Your task to perform on an android device: Open Maps and search for coffee Image 0: 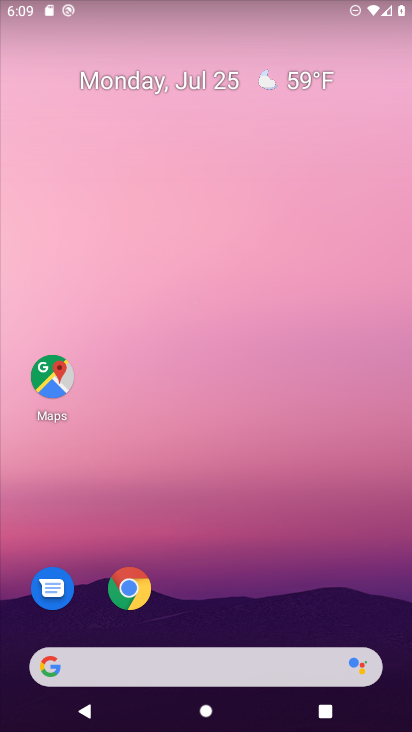
Step 0: click (51, 377)
Your task to perform on an android device: Open Maps and search for coffee Image 1: 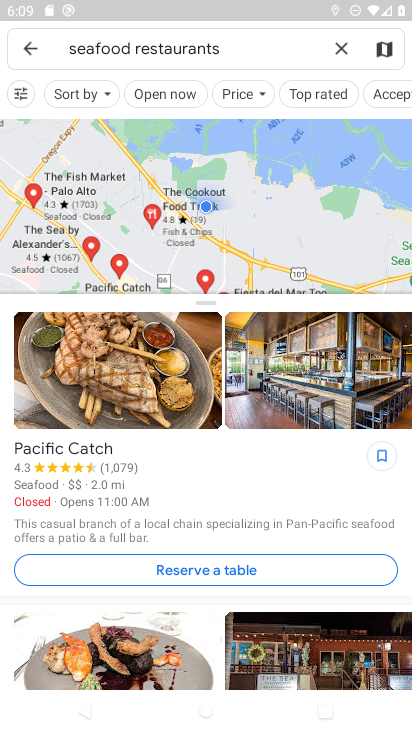
Step 1: click (345, 46)
Your task to perform on an android device: Open Maps and search for coffee Image 2: 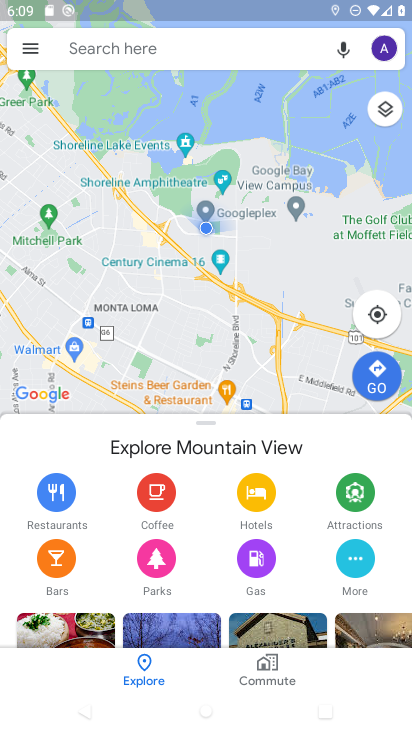
Step 2: type "coffee"
Your task to perform on an android device: Open Maps and search for coffee Image 3: 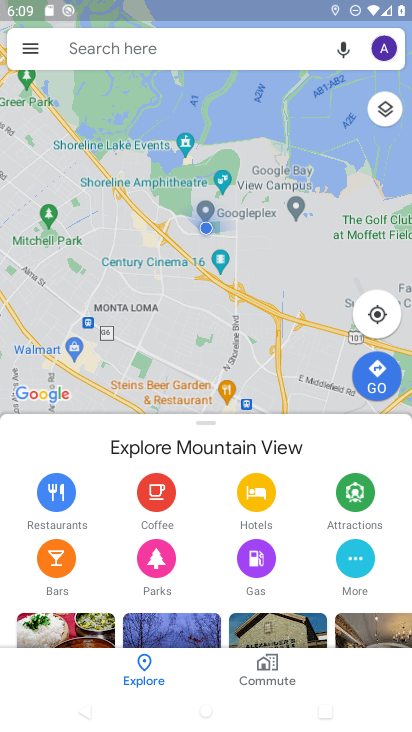
Step 3: press enter
Your task to perform on an android device: Open Maps and search for coffee Image 4: 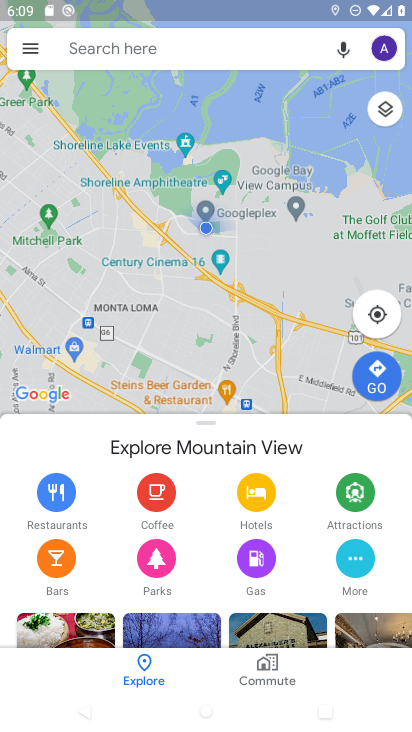
Step 4: click (165, 44)
Your task to perform on an android device: Open Maps and search for coffee Image 5: 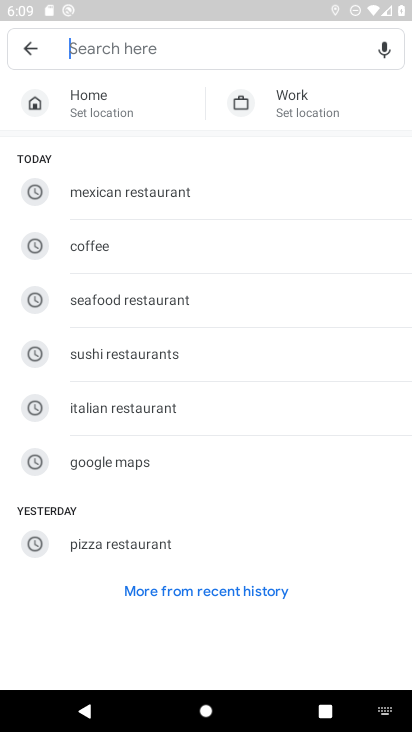
Step 5: type "coffee"
Your task to perform on an android device: Open Maps and search for coffee Image 6: 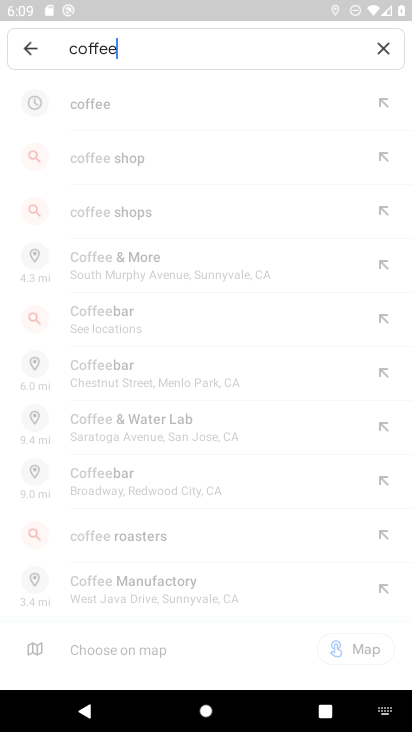
Step 6: press enter
Your task to perform on an android device: Open Maps and search for coffee Image 7: 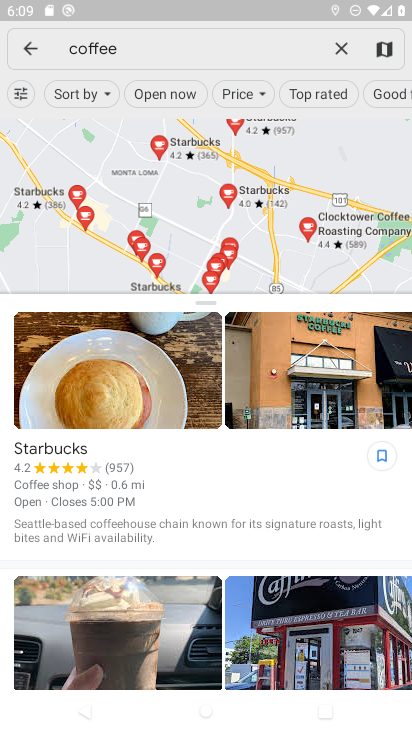
Step 7: task complete